Your task to perform on an android device: empty trash in google photos Image 0: 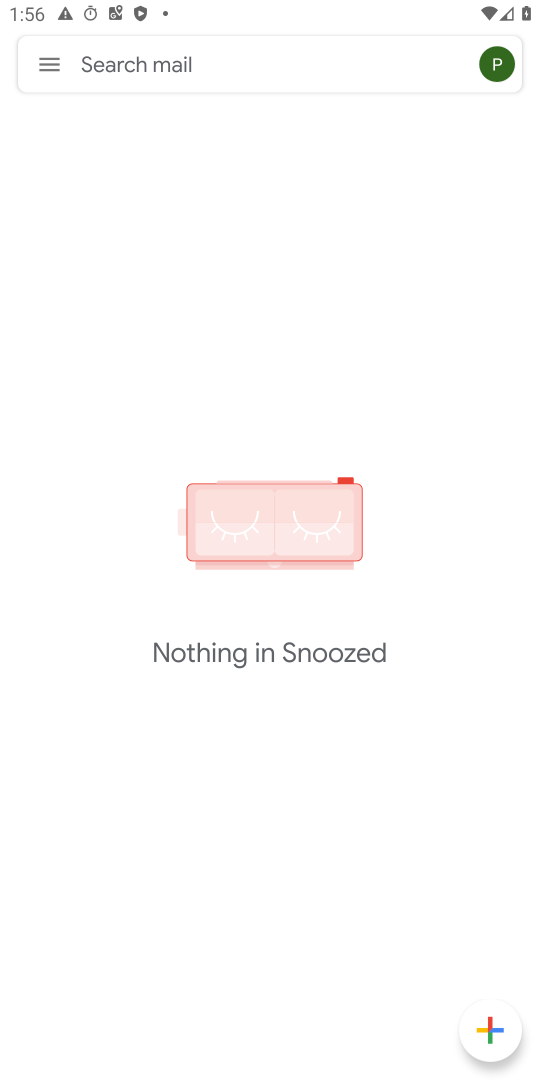
Step 0: press home button
Your task to perform on an android device: empty trash in google photos Image 1: 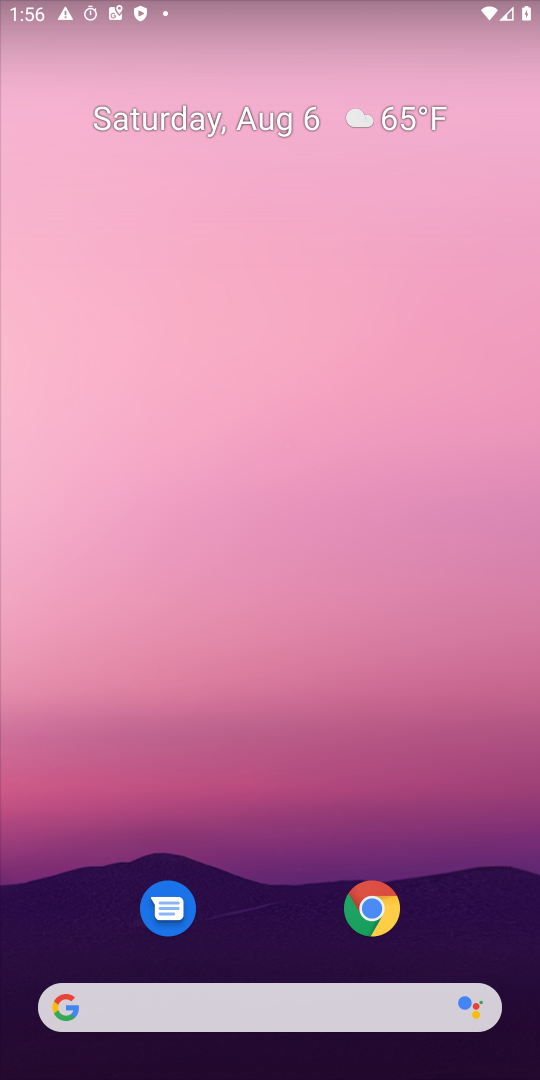
Step 1: drag from (293, 885) to (280, 43)
Your task to perform on an android device: empty trash in google photos Image 2: 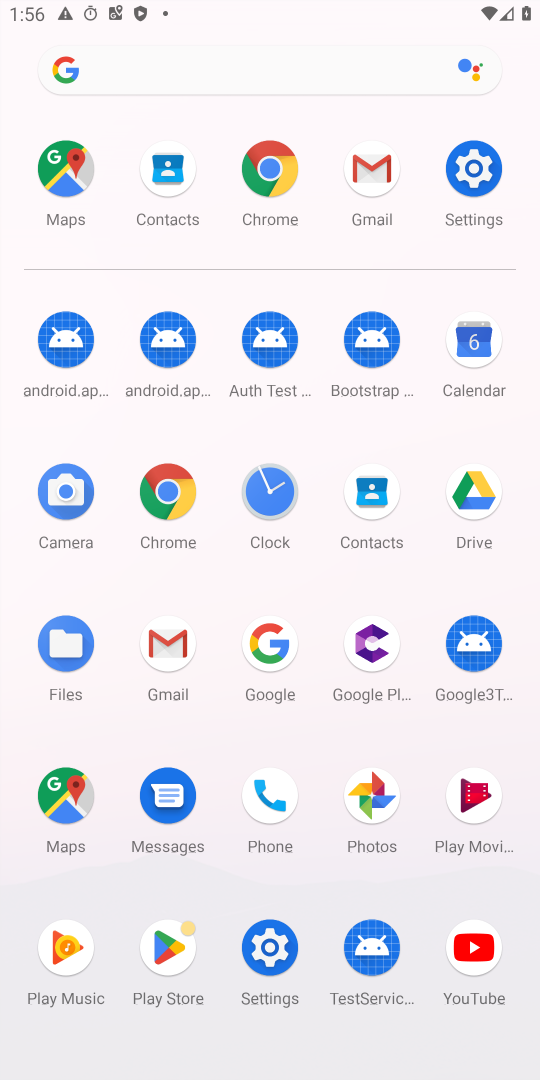
Step 2: click (369, 185)
Your task to perform on an android device: empty trash in google photos Image 3: 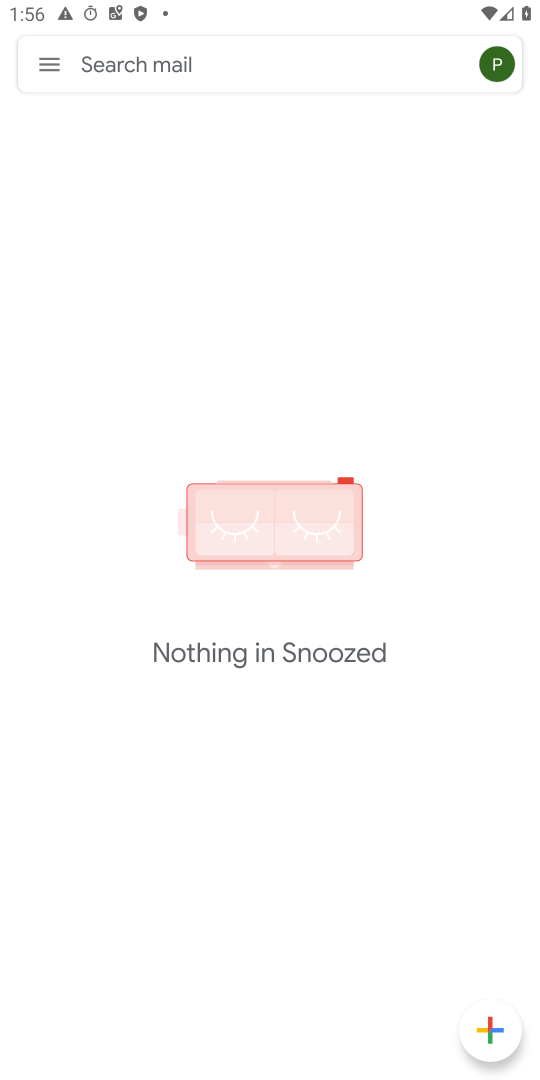
Step 3: click (57, 66)
Your task to perform on an android device: empty trash in google photos Image 4: 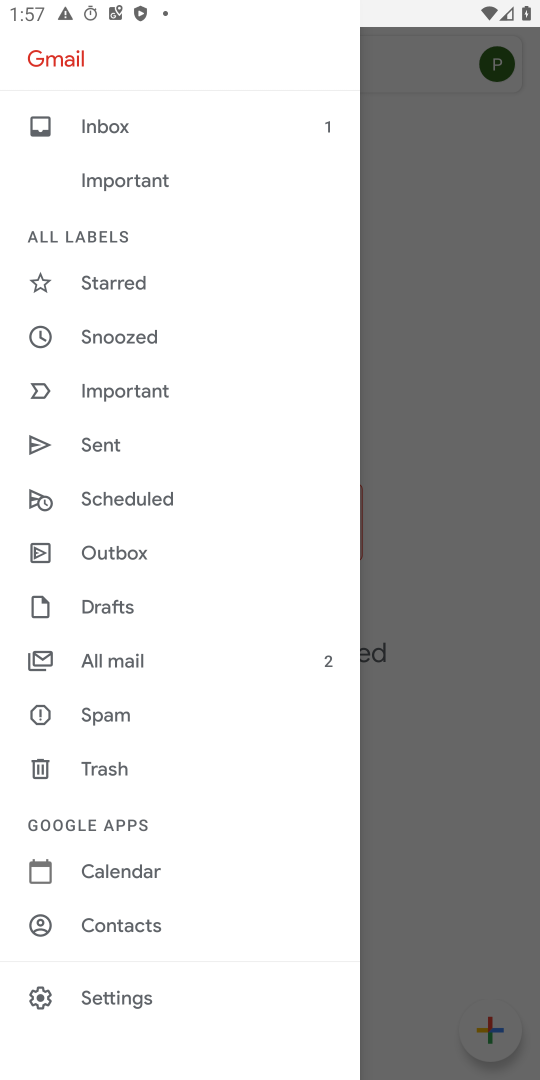
Step 4: click (121, 775)
Your task to perform on an android device: empty trash in google photos Image 5: 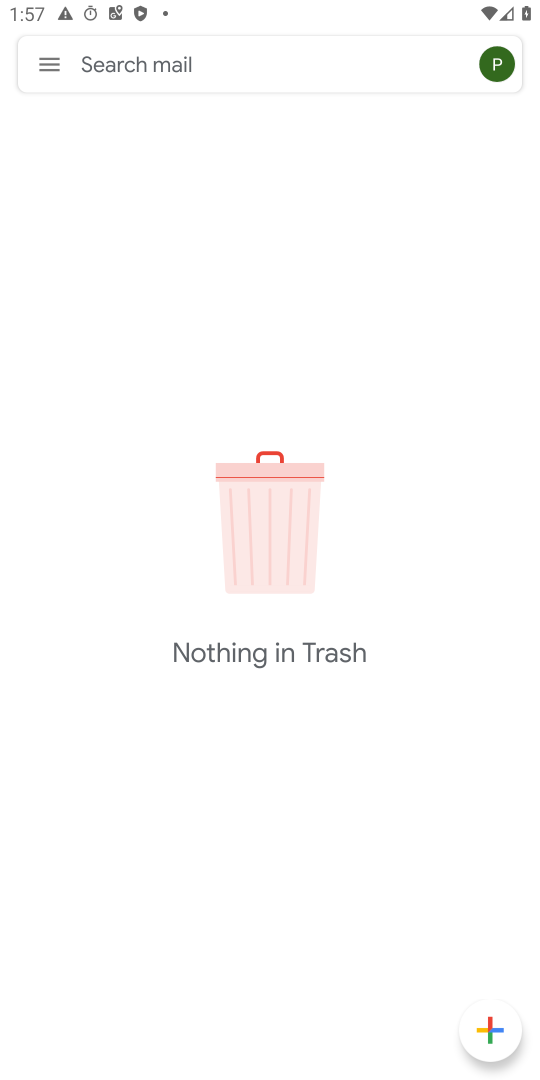
Step 5: click (147, 765)
Your task to perform on an android device: empty trash in google photos Image 6: 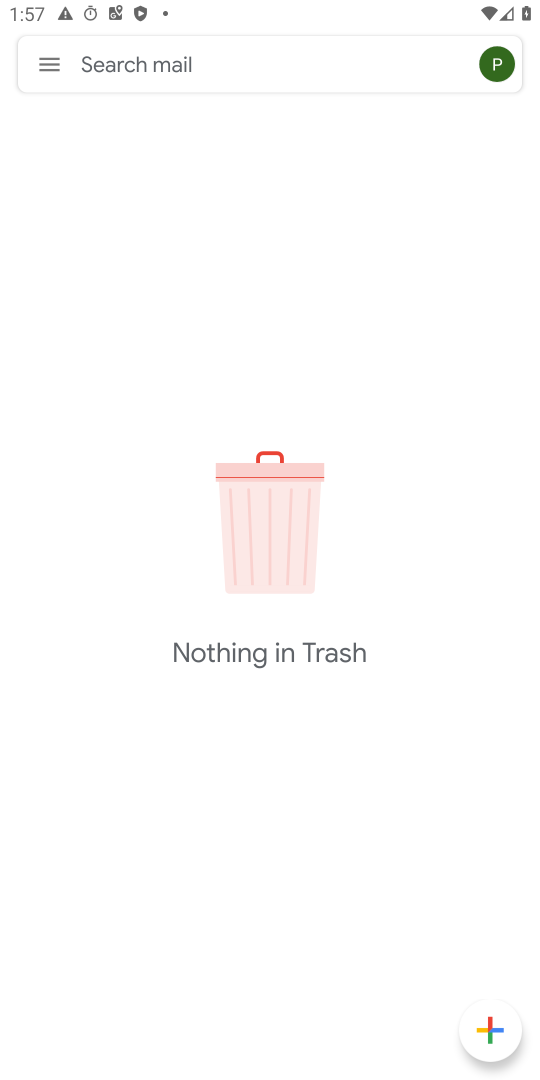
Step 6: task complete